Your task to perform on an android device: Open Youtube and go to "Your channel" Image 0: 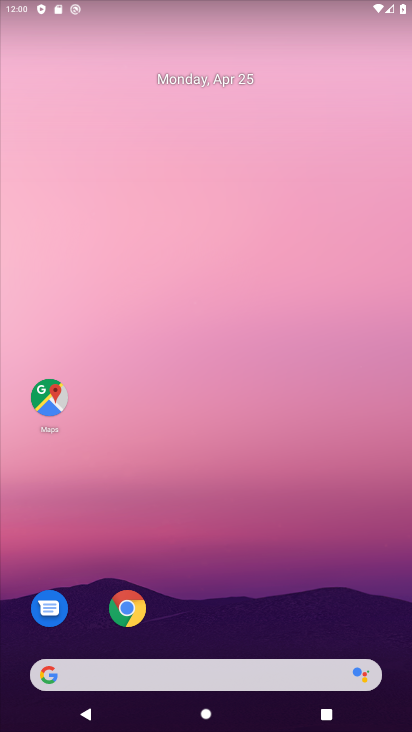
Step 0: drag from (227, 683) to (227, 116)
Your task to perform on an android device: Open Youtube and go to "Your channel" Image 1: 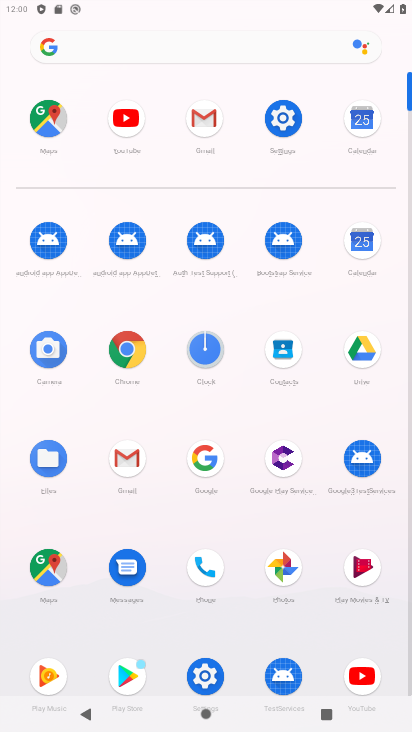
Step 1: click (354, 676)
Your task to perform on an android device: Open Youtube and go to "Your channel" Image 2: 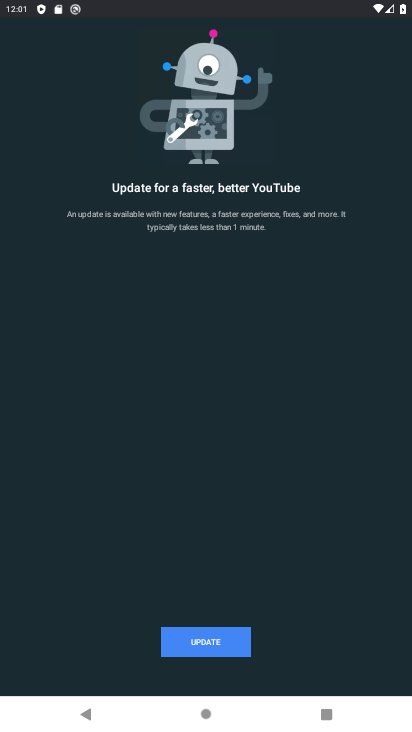
Step 2: task complete